Your task to perform on an android device: turn on translation in the chrome app Image 0: 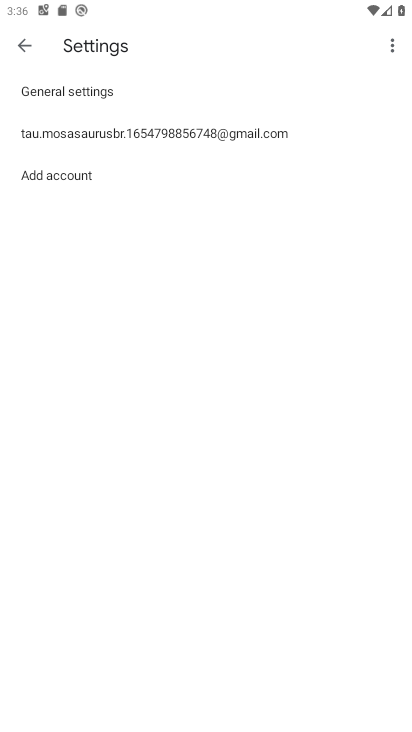
Step 0: press home button
Your task to perform on an android device: turn on translation in the chrome app Image 1: 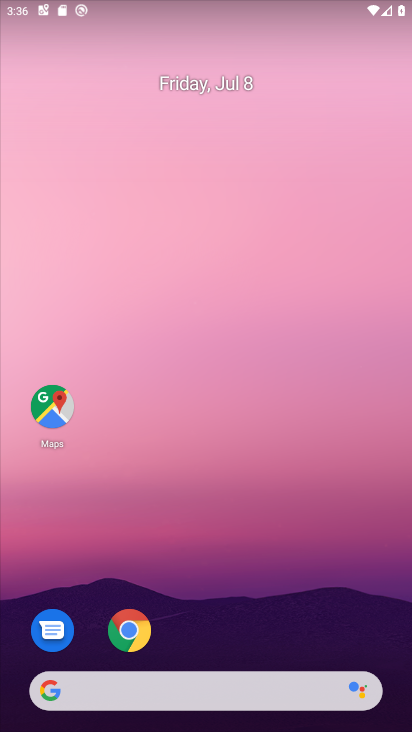
Step 1: drag from (320, 566) to (307, 75)
Your task to perform on an android device: turn on translation in the chrome app Image 2: 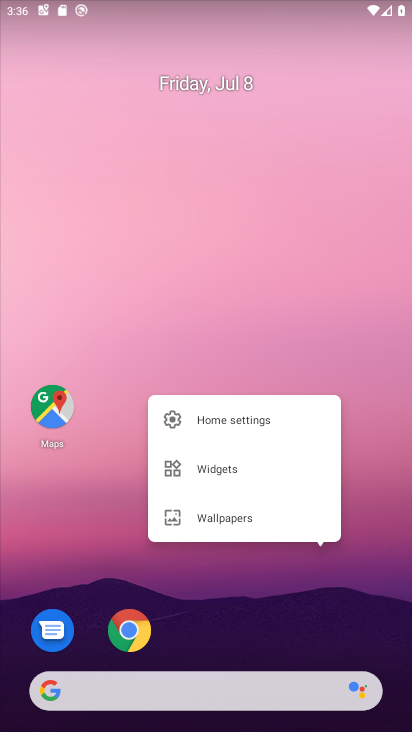
Step 2: click (337, 314)
Your task to perform on an android device: turn on translation in the chrome app Image 3: 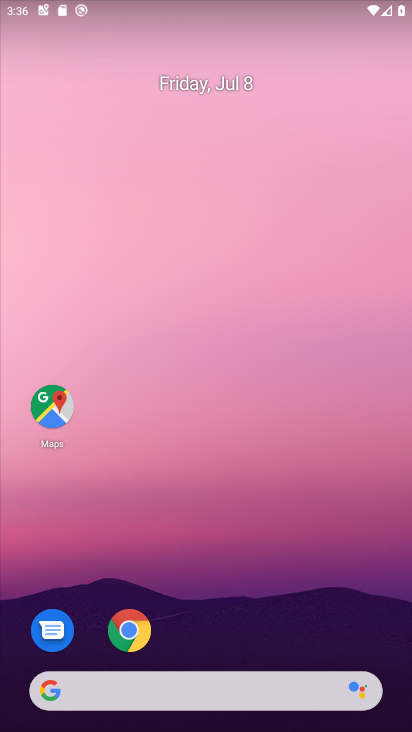
Step 3: click (265, 445)
Your task to perform on an android device: turn on translation in the chrome app Image 4: 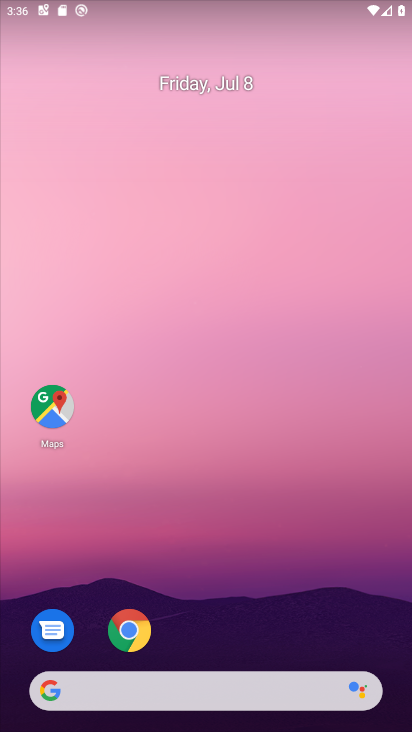
Step 4: drag from (273, 612) to (327, 89)
Your task to perform on an android device: turn on translation in the chrome app Image 5: 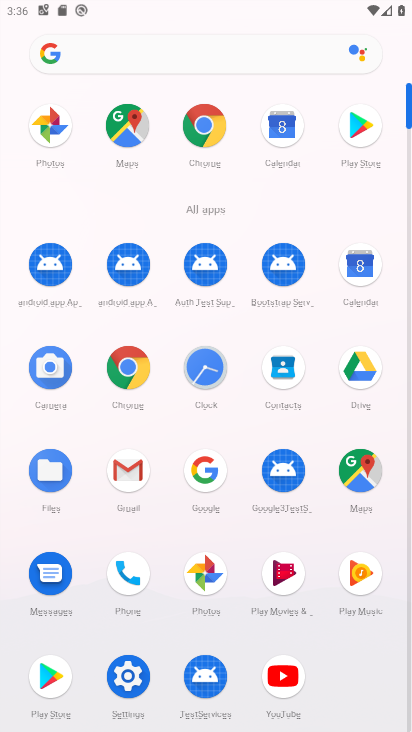
Step 5: click (137, 360)
Your task to perform on an android device: turn on translation in the chrome app Image 6: 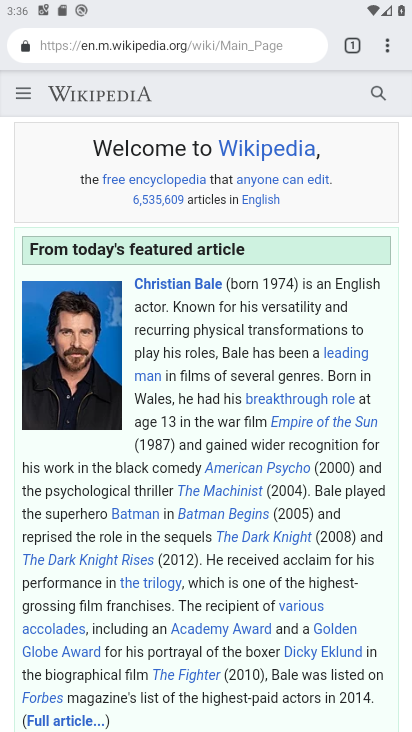
Step 6: drag from (390, 36) to (240, 548)
Your task to perform on an android device: turn on translation in the chrome app Image 7: 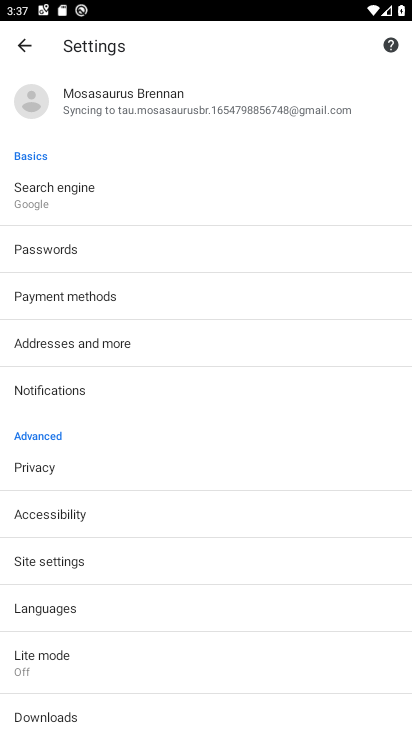
Step 7: click (56, 603)
Your task to perform on an android device: turn on translation in the chrome app Image 8: 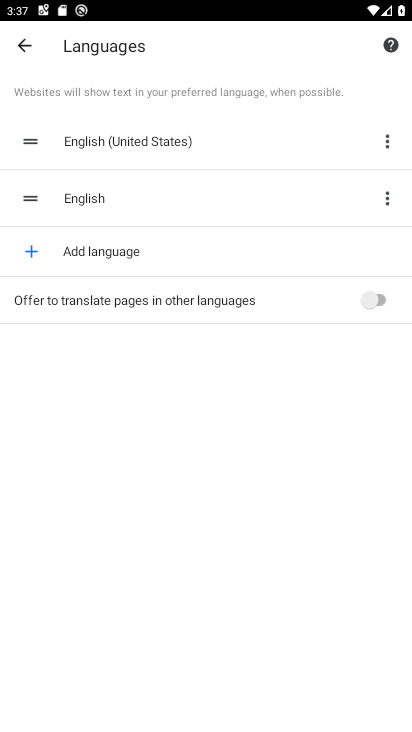
Step 8: click (380, 295)
Your task to perform on an android device: turn on translation in the chrome app Image 9: 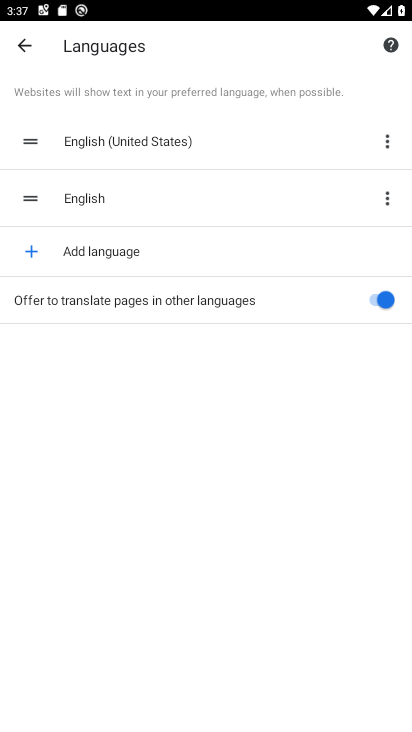
Step 9: task complete